Your task to perform on an android device: add a contact in the contacts app Image 0: 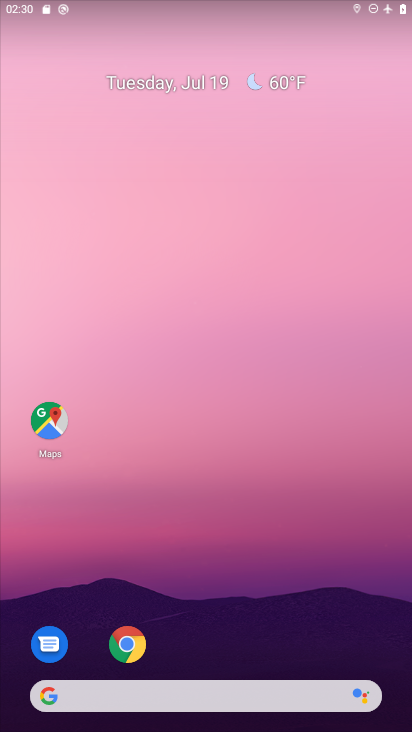
Step 0: drag from (208, 663) to (153, 111)
Your task to perform on an android device: add a contact in the contacts app Image 1: 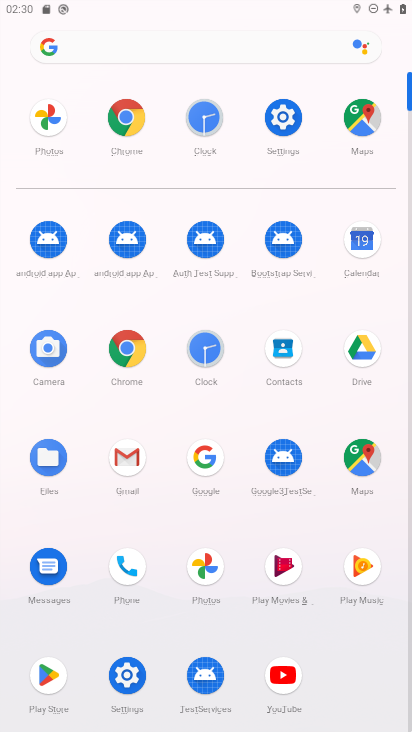
Step 1: click (122, 566)
Your task to perform on an android device: add a contact in the contacts app Image 2: 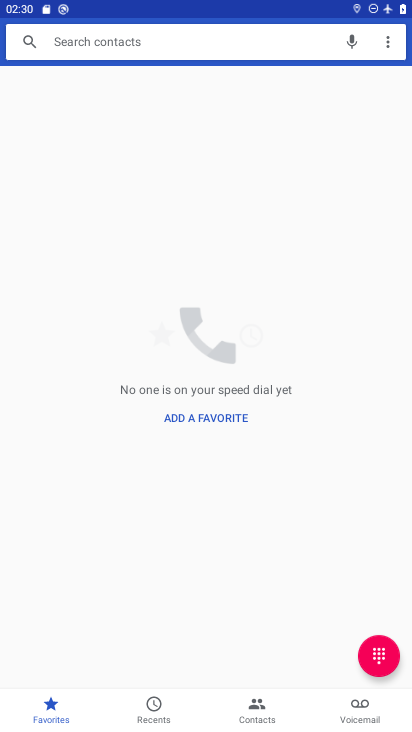
Step 2: click (264, 692)
Your task to perform on an android device: add a contact in the contacts app Image 3: 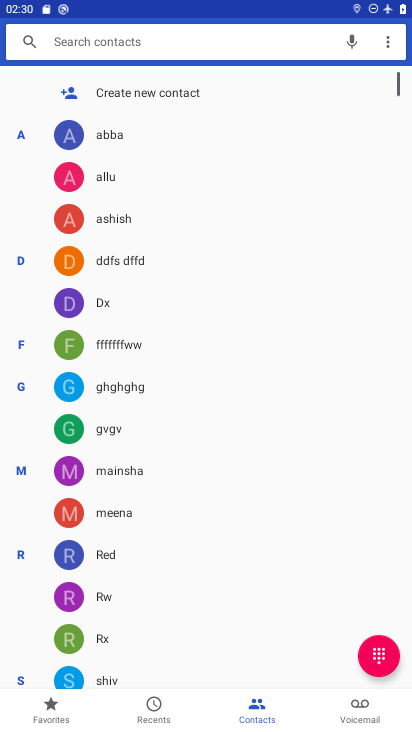
Step 3: click (143, 97)
Your task to perform on an android device: add a contact in the contacts app Image 4: 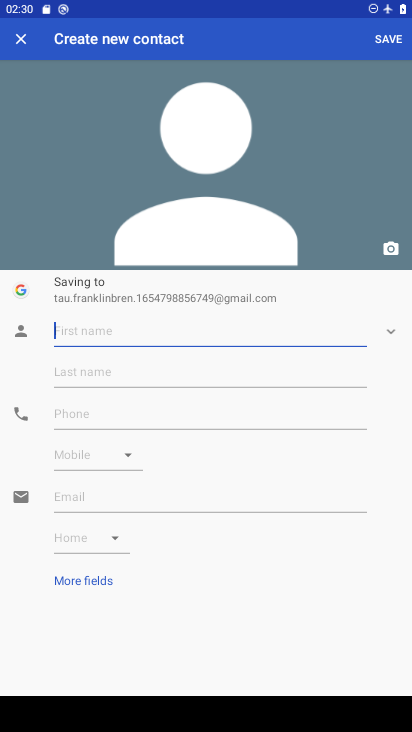
Step 4: type "dd"
Your task to perform on an android device: add a contact in the contacts app Image 5: 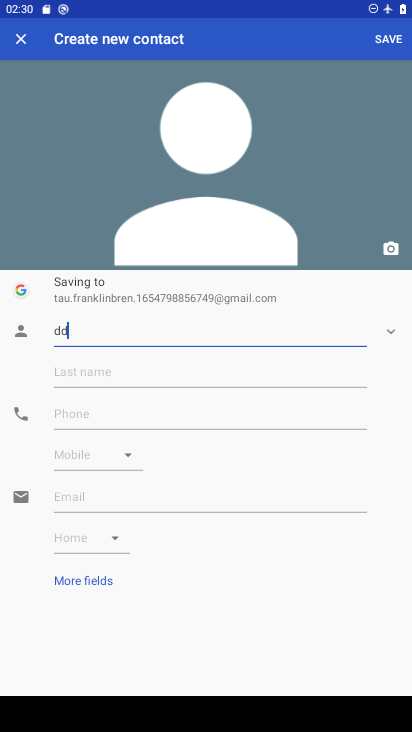
Step 5: click (139, 403)
Your task to perform on an android device: add a contact in the contacts app Image 6: 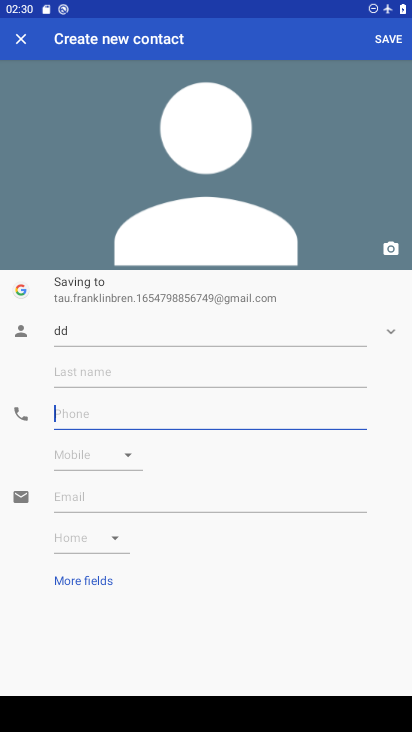
Step 6: type "222"
Your task to perform on an android device: add a contact in the contacts app Image 7: 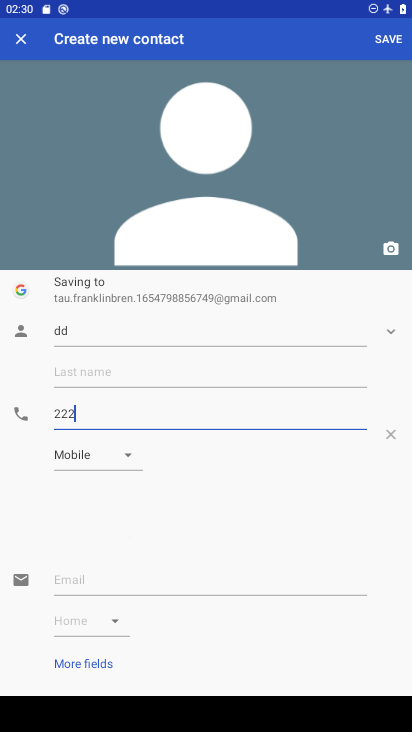
Step 7: type ""
Your task to perform on an android device: add a contact in the contacts app Image 8: 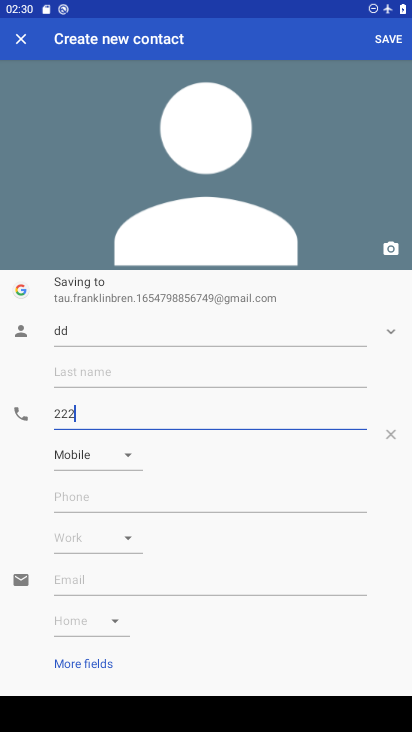
Step 8: click (390, 41)
Your task to perform on an android device: add a contact in the contacts app Image 9: 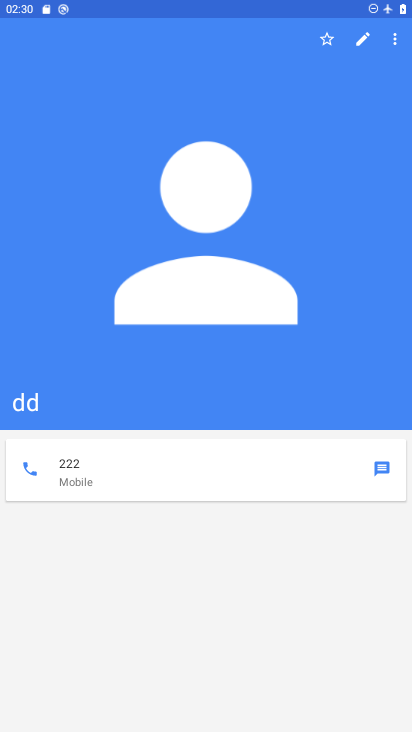
Step 9: task complete